Your task to perform on an android device: open chrome privacy settings Image 0: 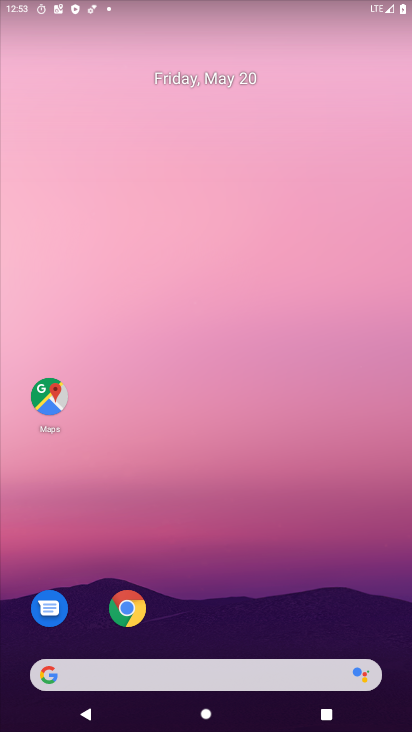
Step 0: drag from (362, 613) to (338, 84)
Your task to perform on an android device: open chrome privacy settings Image 1: 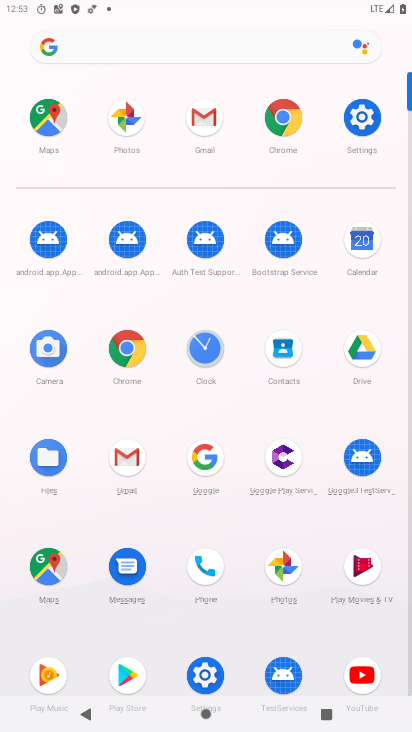
Step 1: click (129, 358)
Your task to perform on an android device: open chrome privacy settings Image 2: 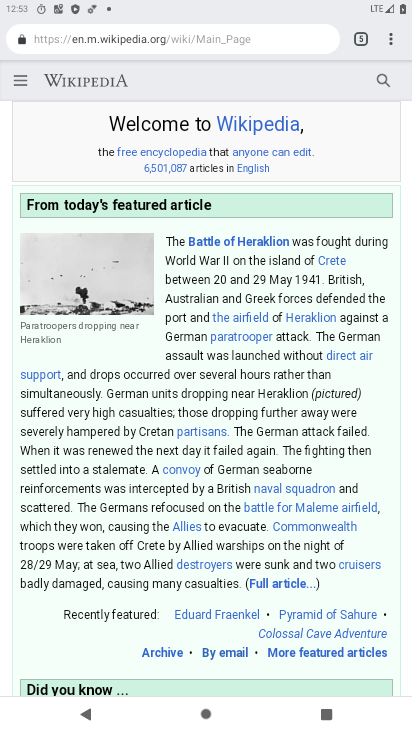
Step 2: drag from (394, 42) to (288, 476)
Your task to perform on an android device: open chrome privacy settings Image 3: 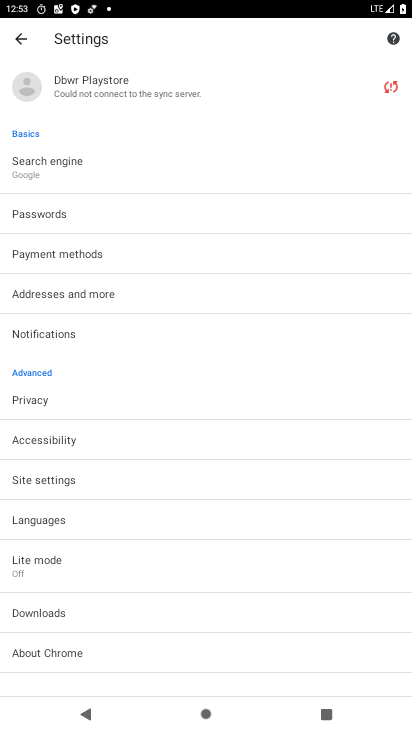
Step 3: click (73, 398)
Your task to perform on an android device: open chrome privacy settings Image 4: 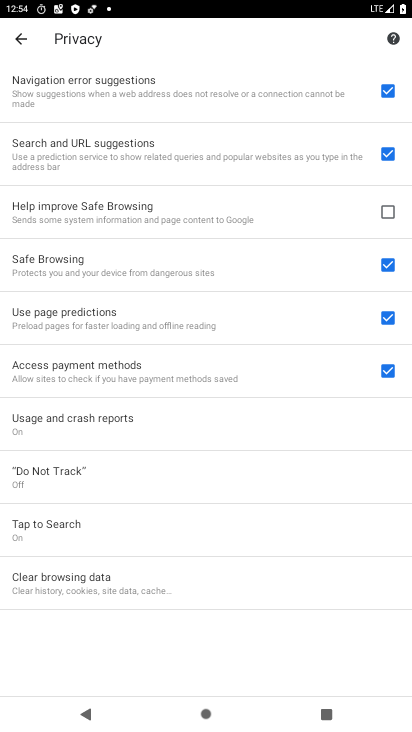
Step 4: task complete